Your task to perform on an android device: turn off notifications in google photos Image 0: 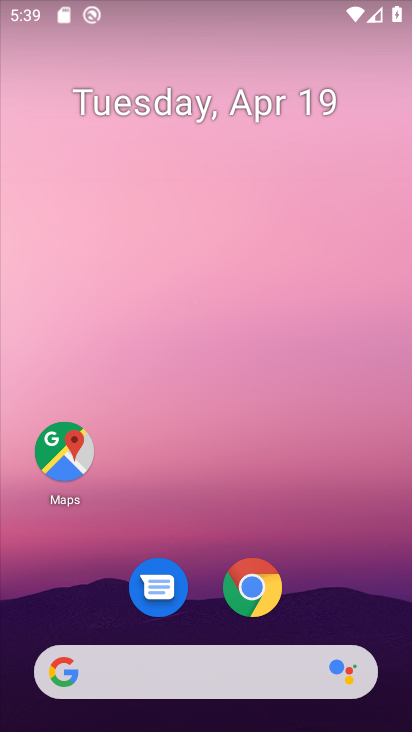
Step 0: drag from (328, 614) to (387, 23)
Your task to perform on an android device: turn off notifications in google photos Image 1: 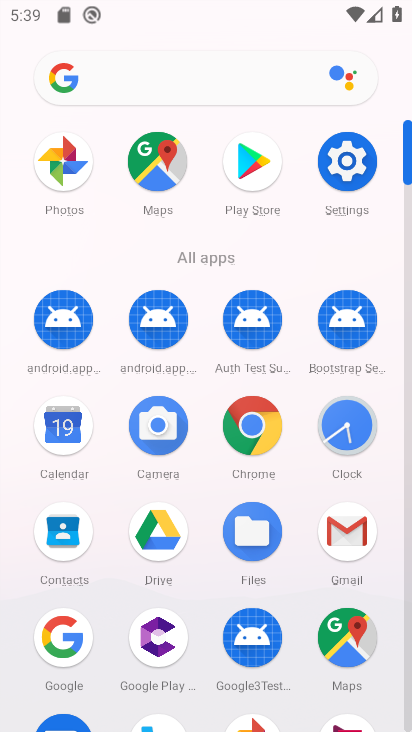
Step 1: drag from (198, 639) to (256, 206)
Your task to perform on an android device: turn off notifications in google photos Image 2: 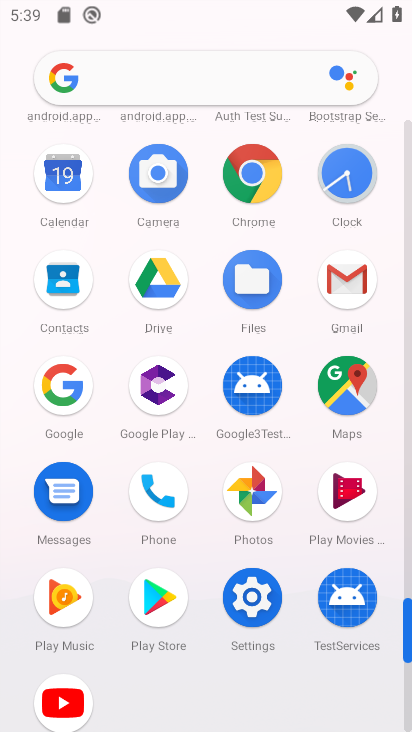
Step 2: click (245, 487)
Your task to perform on an android device: turn off notifications in google photos Image 3: 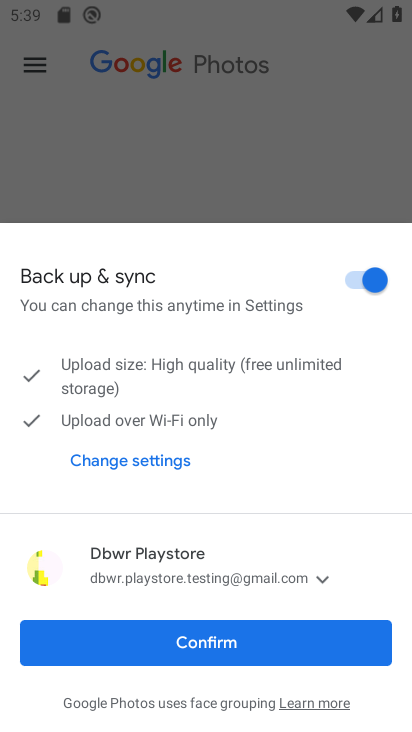
Step 3: click (209, 644)
Your task to perform on an android device: turn off notifications in google photos Image 4: 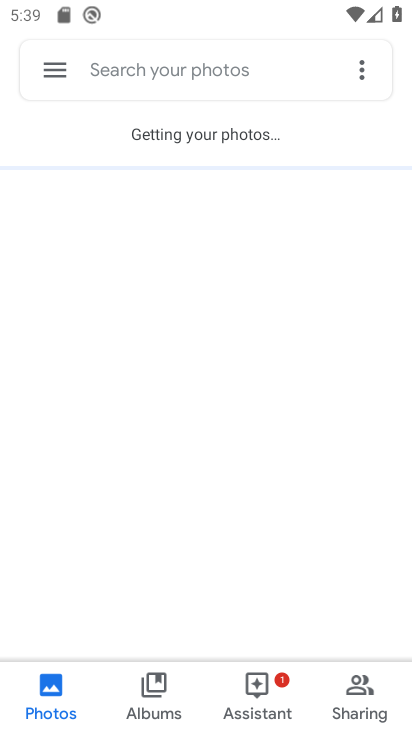
Step 4: click (65, 63)
Your task to perform on an android device: turn off notifications in google photos Image 5: 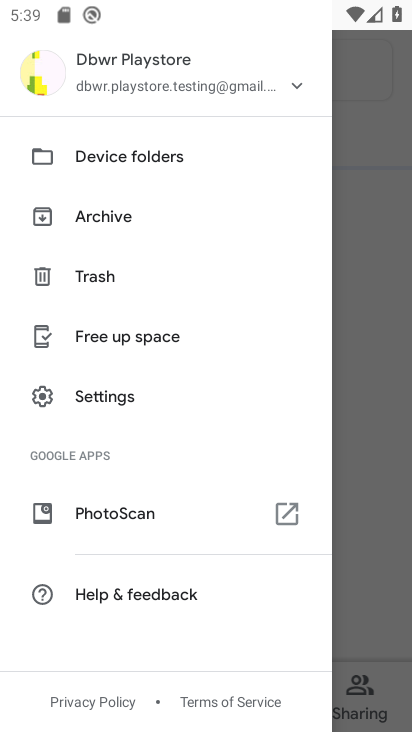
Step 5: click (111, 394)
Your task to perform on an android device: turn off notifications in google photos Image 6: 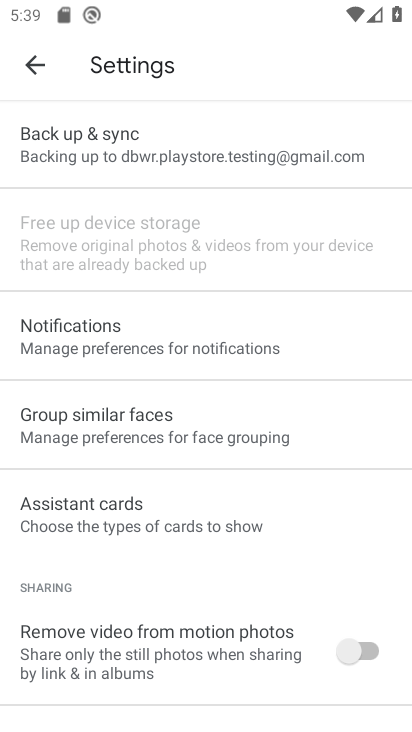
Step 6: click (128, 332)
Your task to perform on an android device: turn off notifications in google photos Image 7: 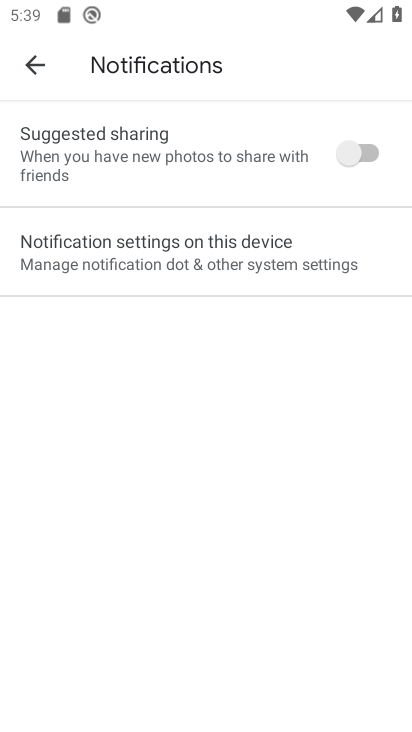
Step 7: click (220, 251)
Your task to perform on an android device: turn off notifications in google photos Image 8: 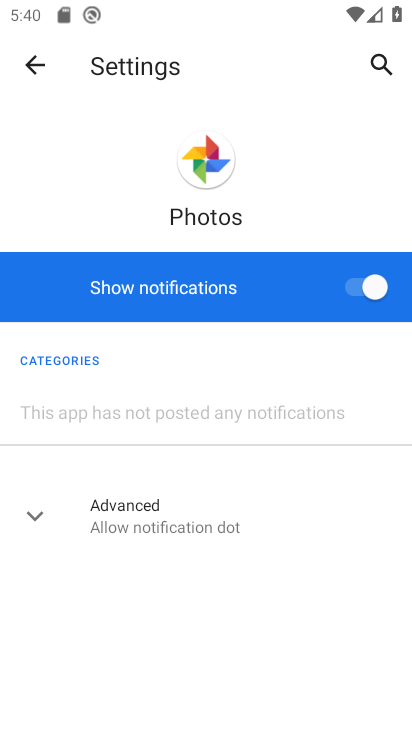
Step 8: click (360, 278)
Your task to perform on an android device: turn off notifications in google photos Image 9: 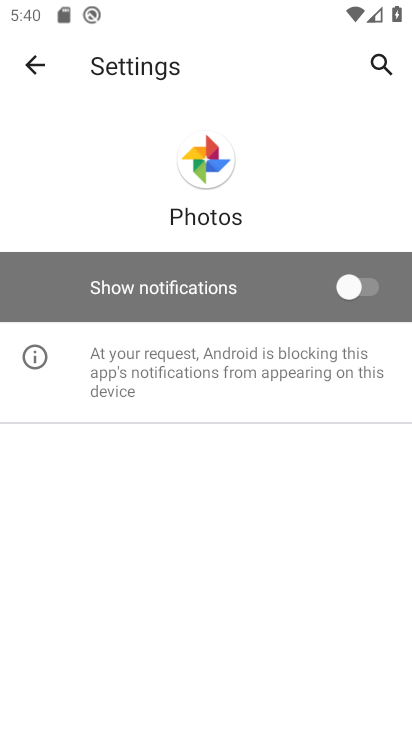
Step 9: task complete